Your task to perform on an android device: turn on improve location accuracy Image 0: 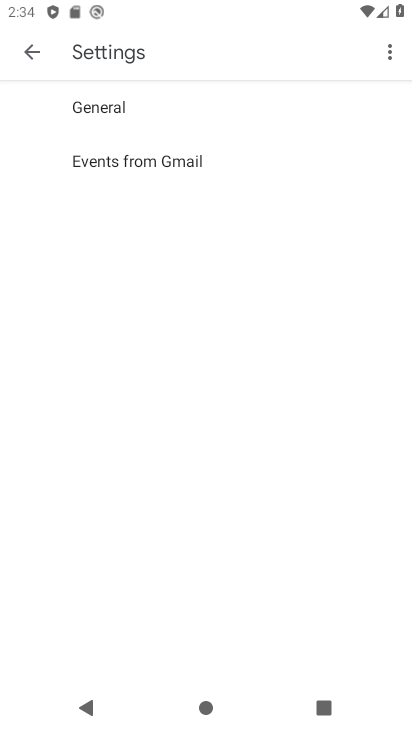
Step 0: press home button
Your task to perform on an android device: turn on improve location accuracy Image 1: 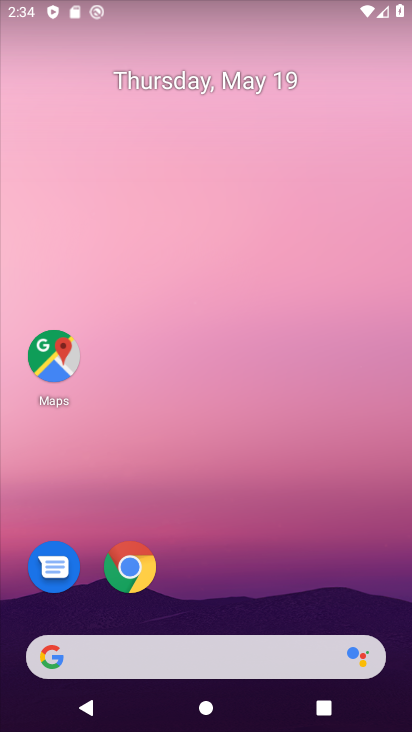
Step 1: drag from (220, 625) to (264, 6)
Your task to perform on an android device: turn on improve location accuracy Image 2: 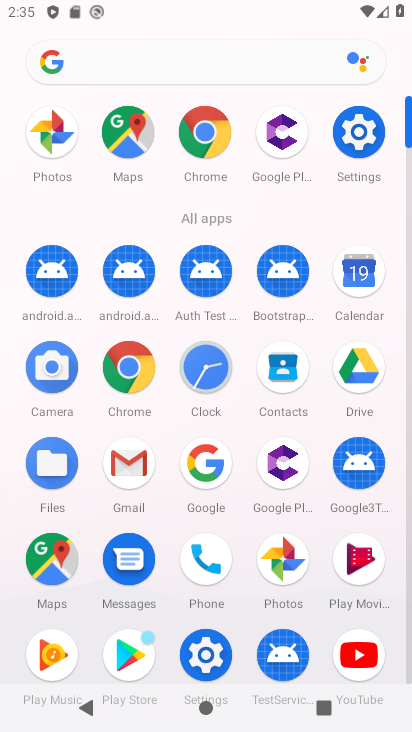
Step 2: click (357, 150)
Your task to perform on an android device: turn on improve location accuracy Image 3: 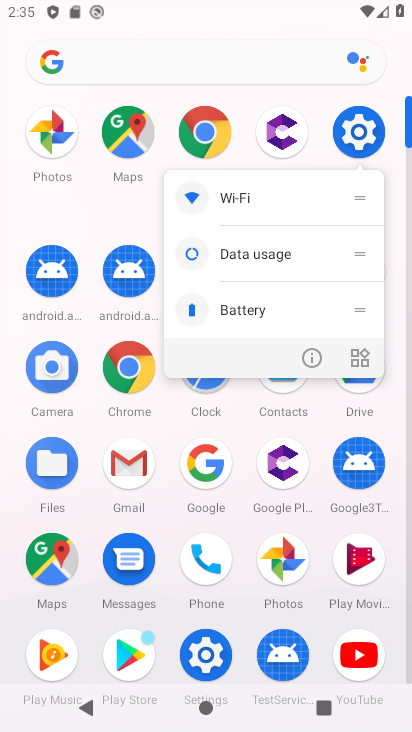
Step 3: click (369, 137)
Your task to perform on an android device: turn on improve location accuracy Image 4: 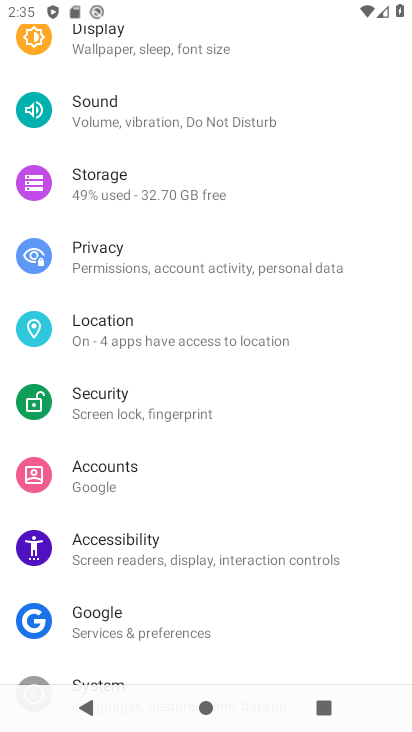
Step 4: click (169, 338)
Your task to perform on an android device: turn on improve location accuracy Image 5: 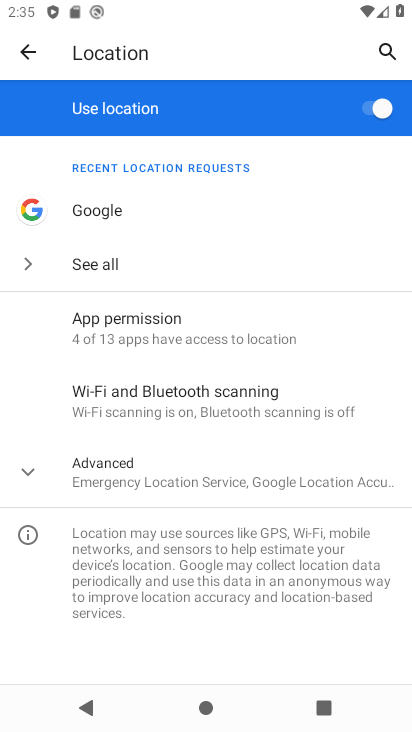
Step 5: click (160, 452)
Your task to perform on an android device: turn on improve location accuracy Image 6: 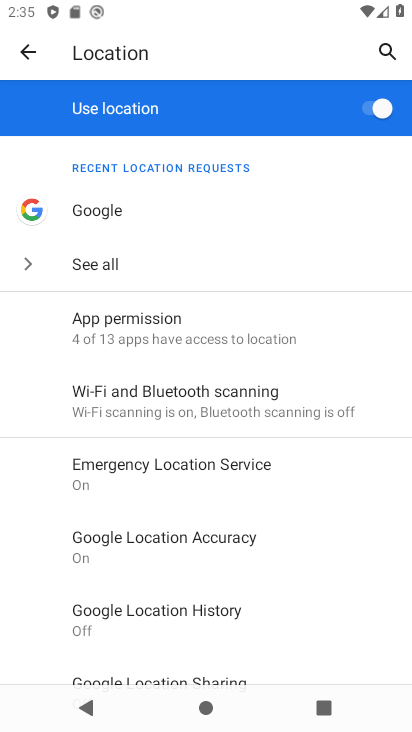
Step 6: click (201, 535)
Your task to perform on an android device: turn on improve location accuracy Image 7: 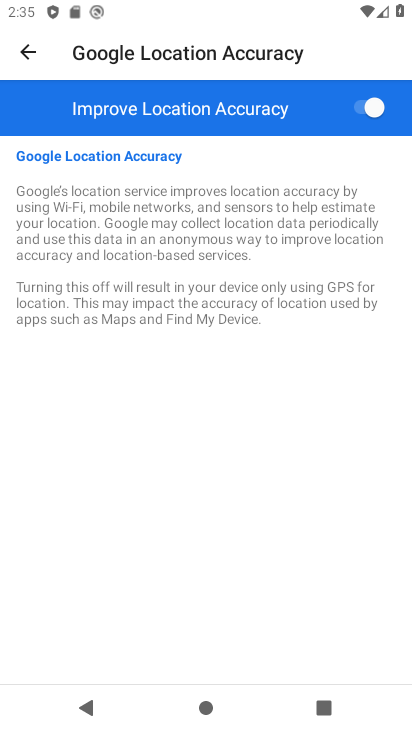
Step 7: task complete